Your task to perform on an android device: change notifications settings Image 0: 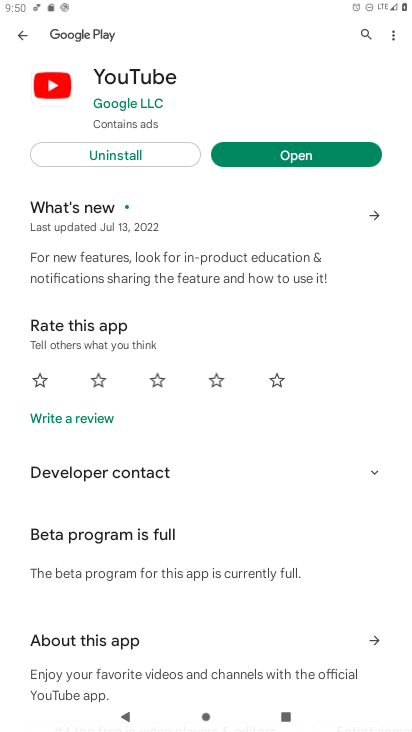
Step 0: press home button
Your task to perform on an android device: change notifications settings Image 1: 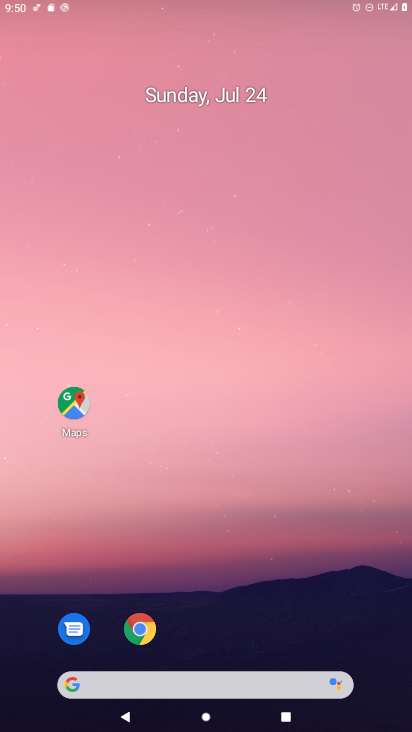
Step 1: drag from (403, 678) to (251, 14)
Your task to perform on an android device: change notifications settings Image 2: 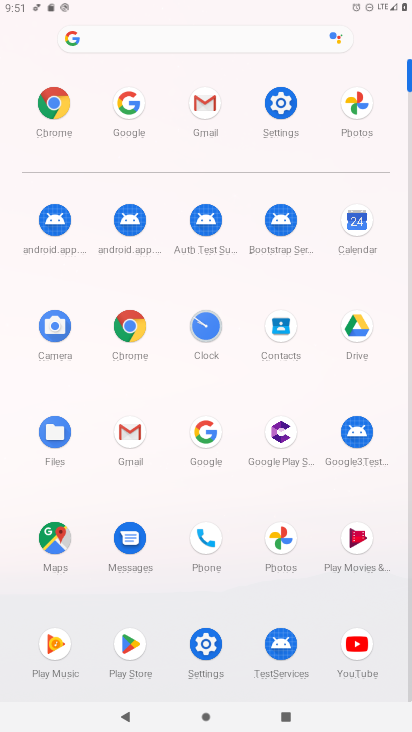
Step 2: click (204, 649)
Your task to perform on an android device: change notifications settings Image 3: 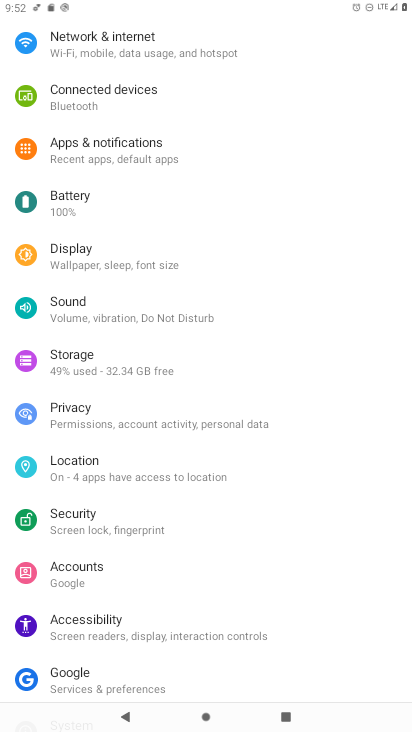
Step 3: click (128, 150)
Your task to perform on an android device: change notifications settings Image 4: 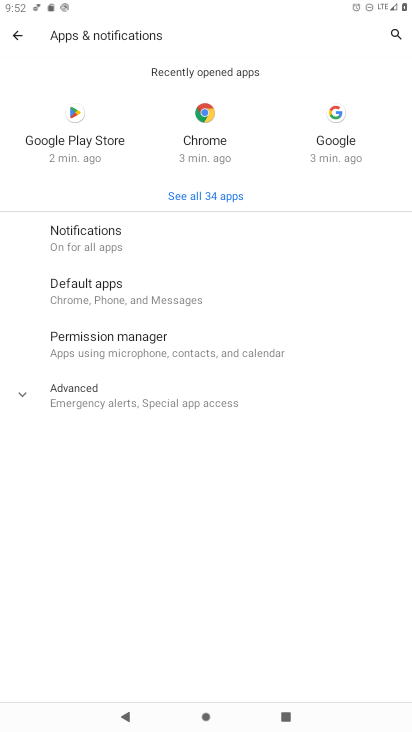
Step 4: click (90, 236)
Your task to perform on an android device: change notifications settings Image 5: 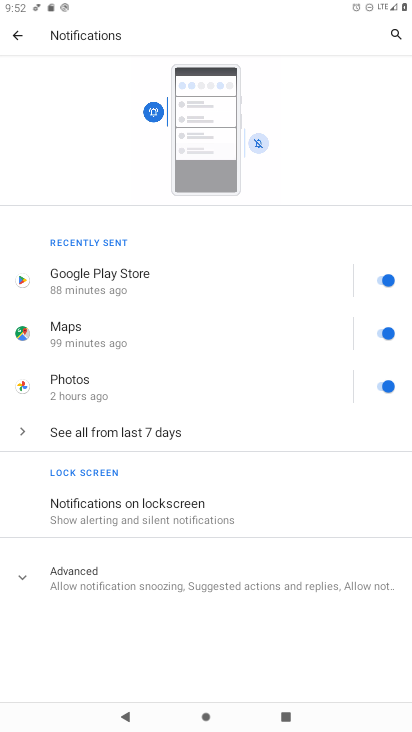
Step 5: task complete